Your task to perform on an android device: Go to internet settings Image 0: 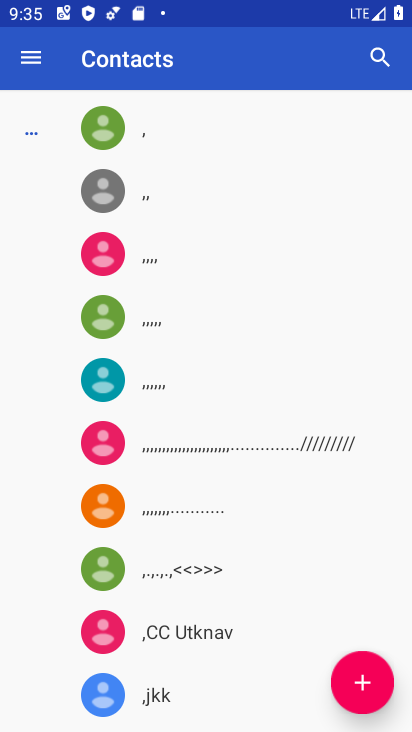
Step 0: press home button
Your task to perform on an android device: Go to internet settings Image 1: 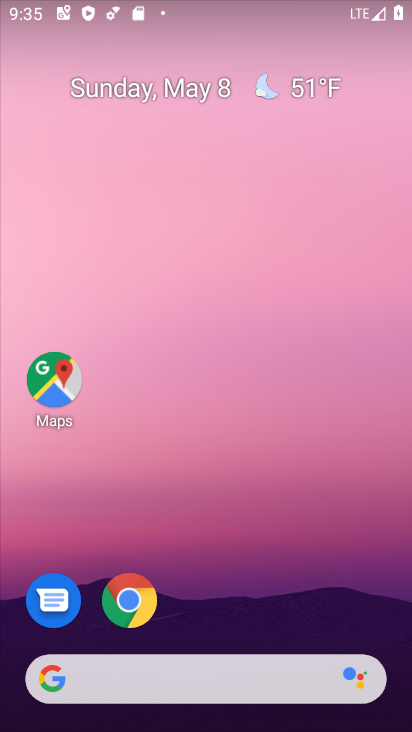
Step 1: drag from (283, 638) to (317, 0)
Your task to perform on an android device: Go to internet settings Image 2: 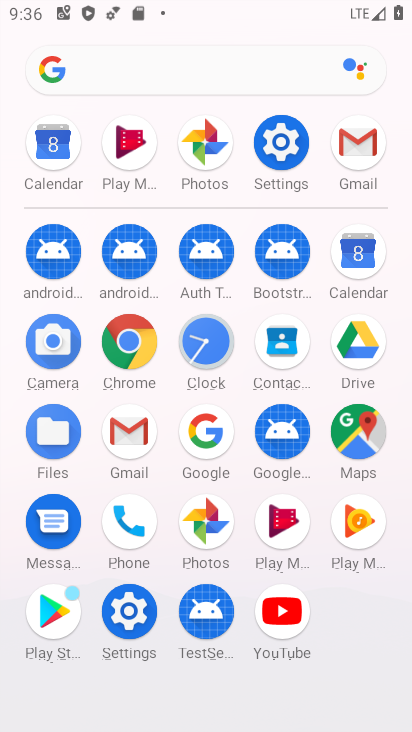
Step 2: click (284, 148)
Your task to perform on an android device: Go to internet settings Image 3: 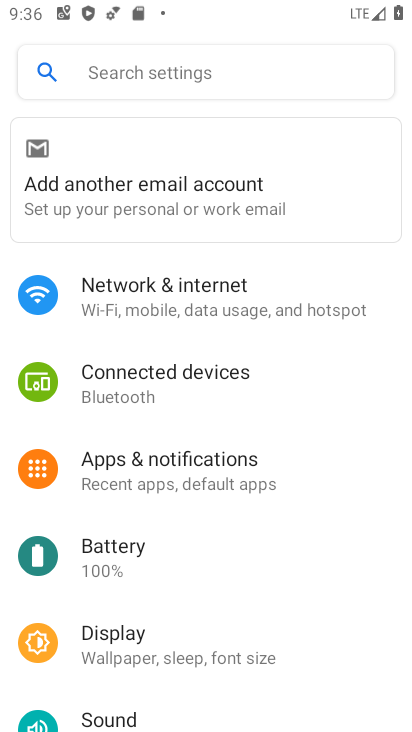
Step 3: click (139, 307)
Your task to perform on an android device: Go to internet settings Image 4: 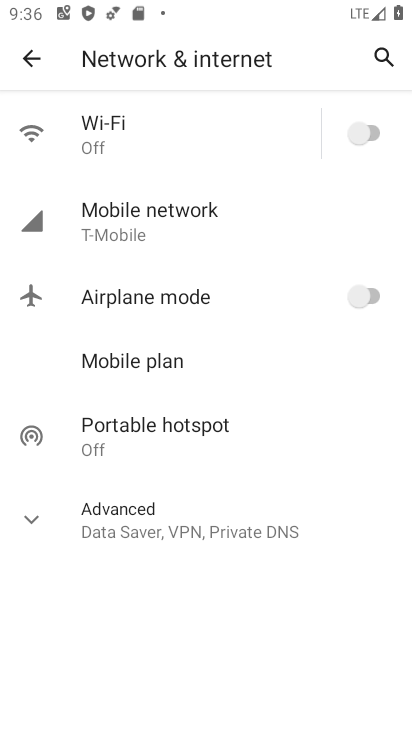
Step 4: click (21, 533)
Your task to perform on an android device: Go to internet settings Image 5: 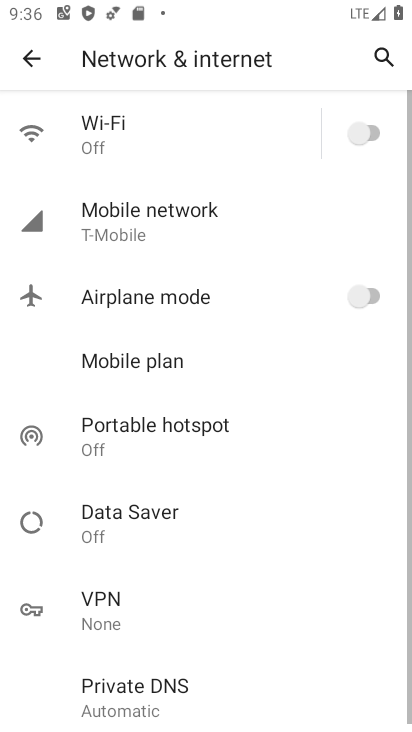
Step 5: task complete